Your task to perform on an android device: toggle translation in the chrome app Image 0: 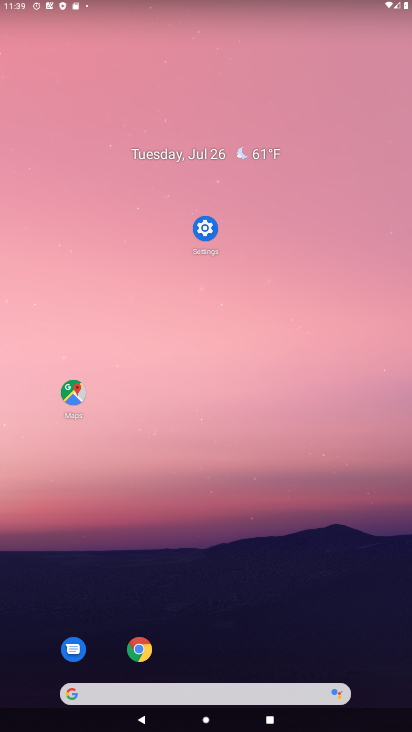
Step 0: drag from (201, 661) to (143, 90)
Your task to perform on an android device: toggle translation in the chrome app Image 1: 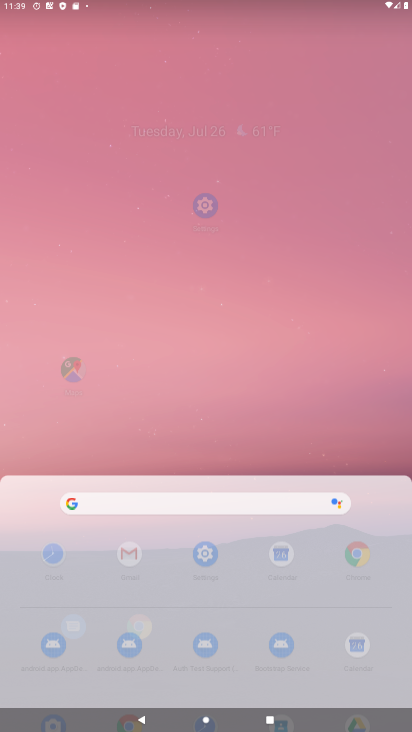
Step 1: drag from (236, 688) to (209, 143)
Your task to perform on an android device: toggle translation in the chrome app Image 2: 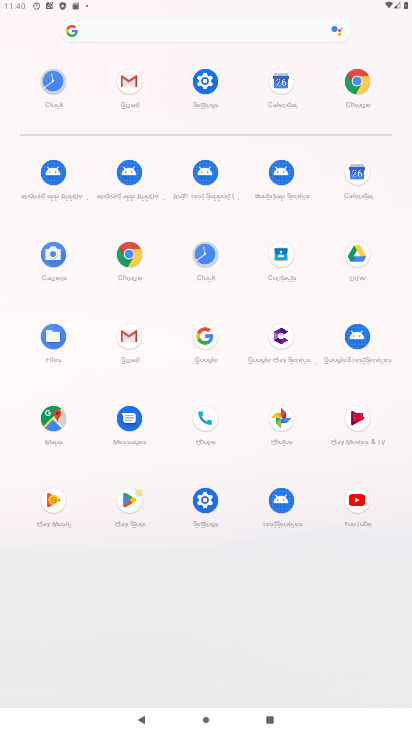
Step 2: drag from (230, 605) to (242, 301)
Your task to perform on an android device: toggle translation in the chrome app Image 3: 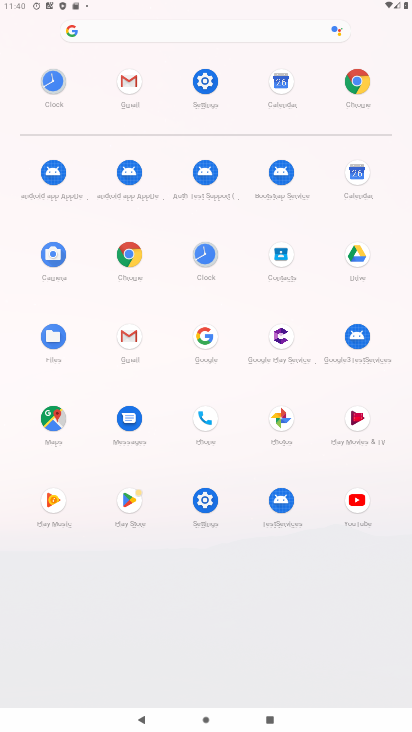
Step 3: click (360, 85)
Your task to perform on an android device: toggle translation in the chrome app Image 4: 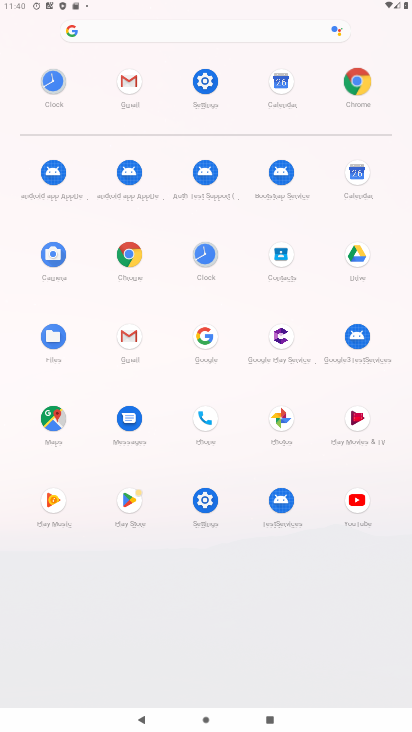
Step 4: click (357, 86)
Your task to perform on an android device: toggle translation in the chrome app Image 5: 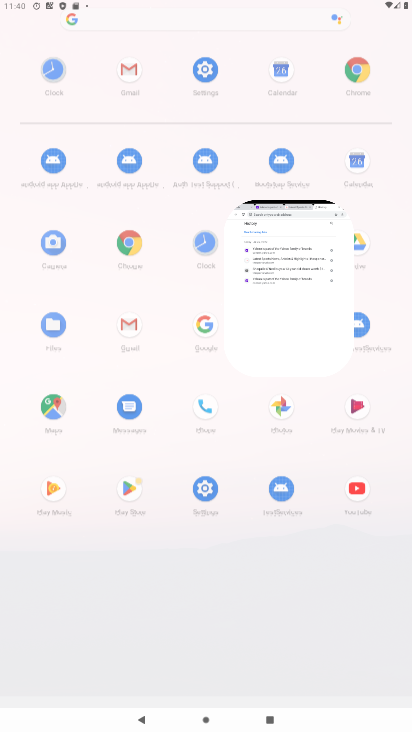
Step 5: click (359, 87)
Your task to perform on an android device: toggle translation in the chrome app Image 6: 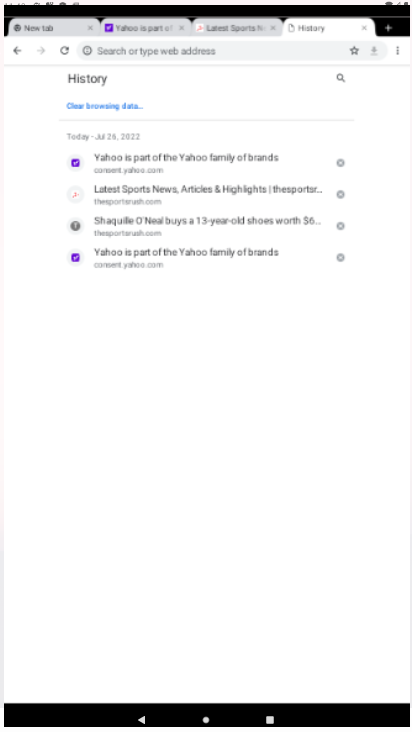
Step 6: click (361, 86)
Your task to perform on an android device: toggle translation in the chrome app Image 7: 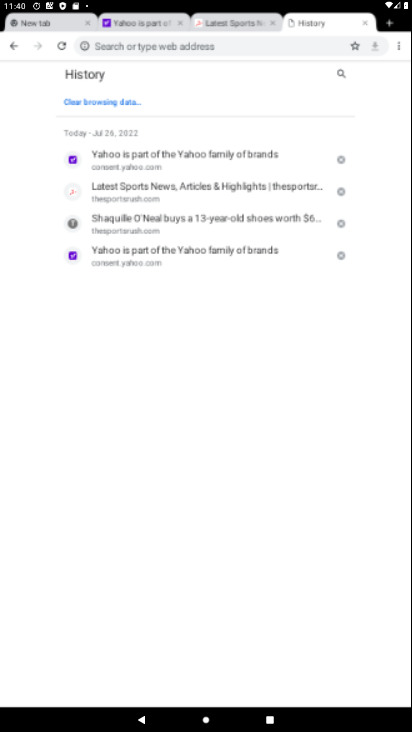
Step 7: click (361, 88)
Your task to perform on an android device: toggle translation in the chrome app Image 8: 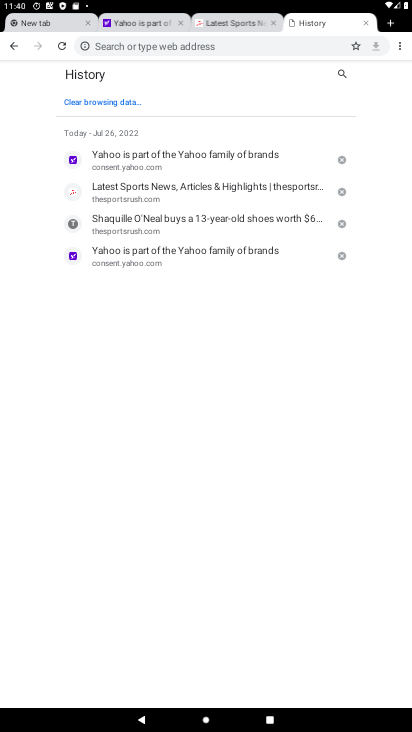
Step 8: drag from (400, 48) to (302, 210)
Your task to perform on an android device: toggle translation in the chrome app Image 9: 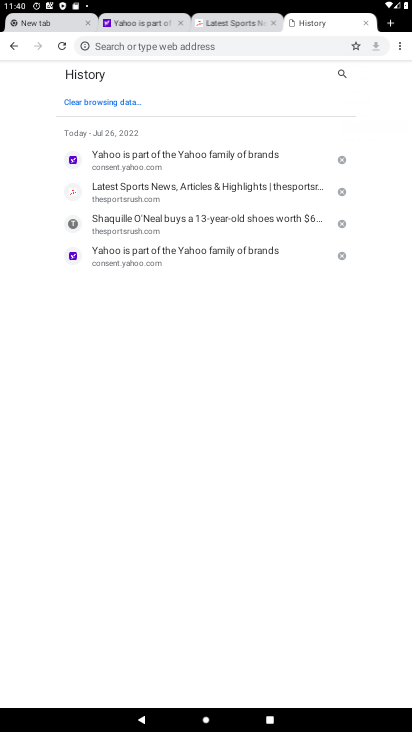
Step 9: click (299, 209)
Your task to perform on an android device: toggle translation in the chrome app Image 10: 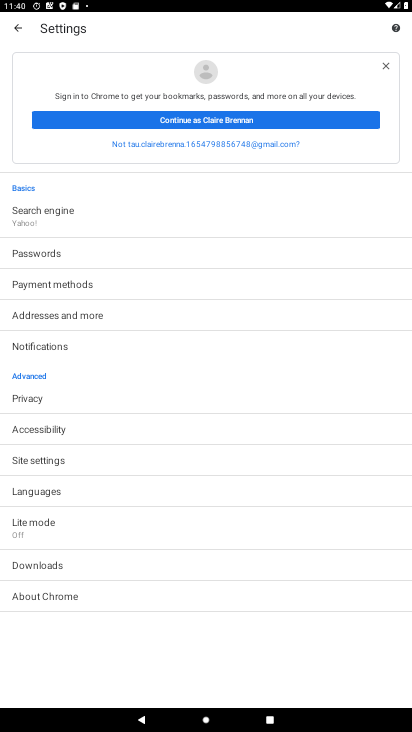
Step 10: click (35, 455)
Your task to perform on an android device: toggle translation in the chrome app Image 11: 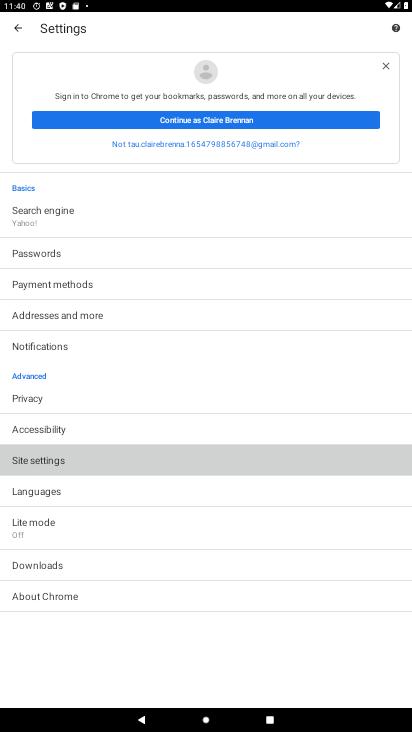
Step 11: click (39, 455)
Your task to perform on an android device: toggle translation in the chrome app Image 12: 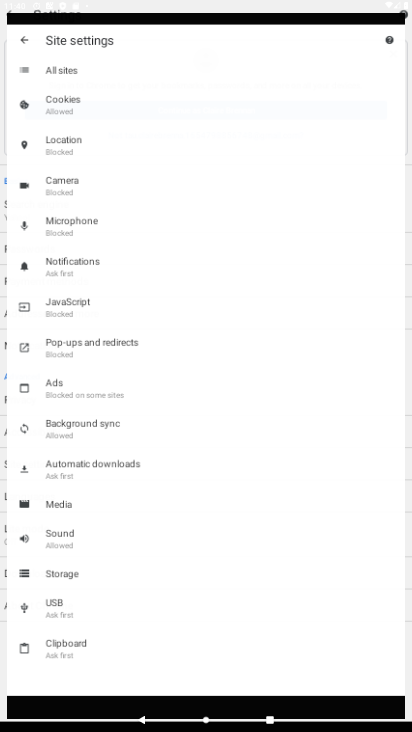
Step 12: click (39, 455)
Your task to perform on an android device: toggle translation in the chrome app Image 13: 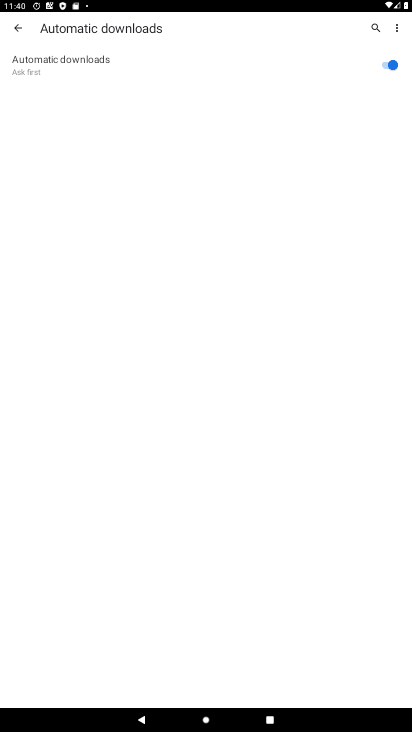
Step 13: click (22, 21)
Your task to perform on an android device: toggle translation in the chrome app Image 14: 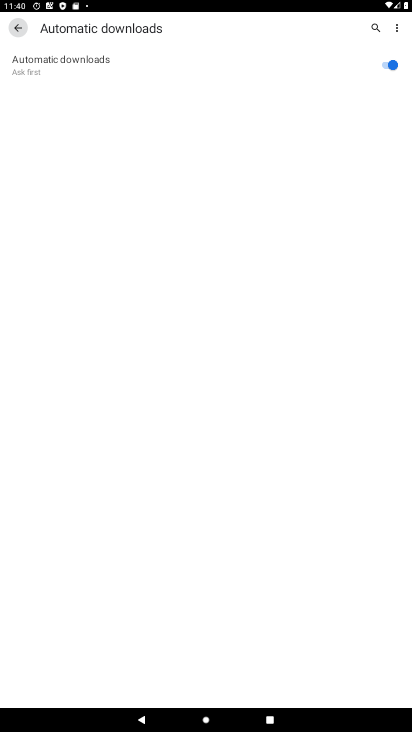
Step 14: click (22, 21)
Your task to perform on an android device: toggle translation in the chrome app Image 15: 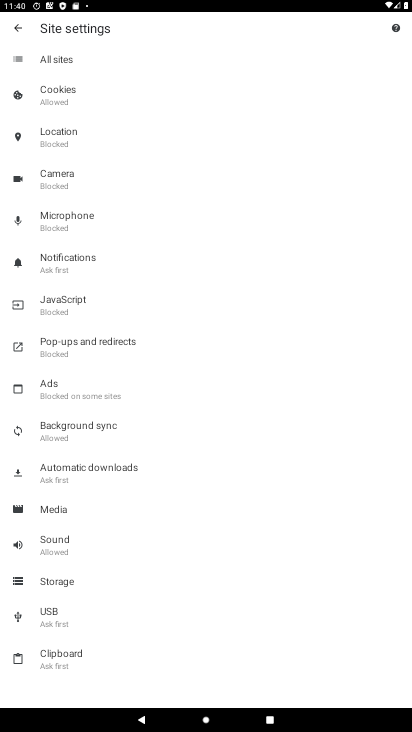
Step 15: click (78, 146)
Your task to perform on an android device: toggle translation in the chrome app Image 16: 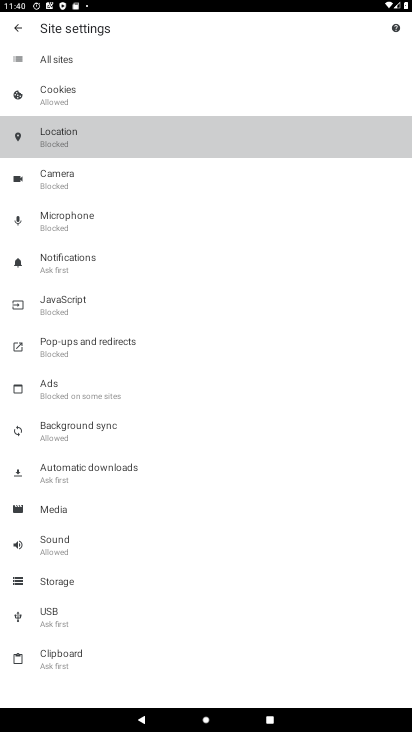
Step 16: click (78, 143)
Your task to perform on an android device: toggle translation in the chrome app Image 17: 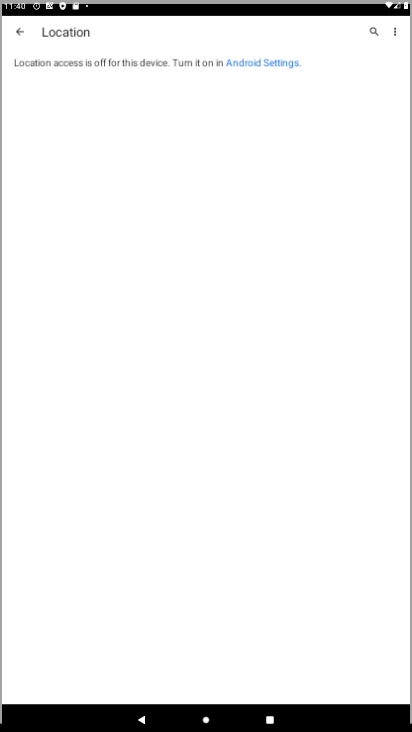
Step 17: click (81, 141)
Your task to perform on an android device: toggle translation in the chrome app Image 18: 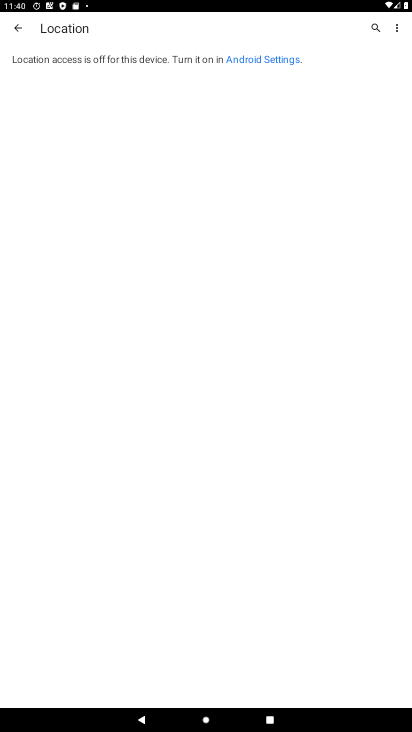
Step 18: click (257, 49)
Your task to perform on an android device: toggle translation in the chrome app Image 19: 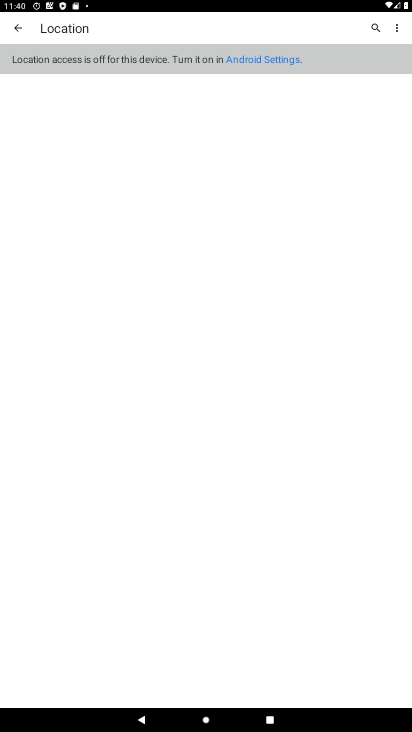
Step 19: click (257, 48)
Your task to perform on an android device: toggle translation in the chrome app Image 20: 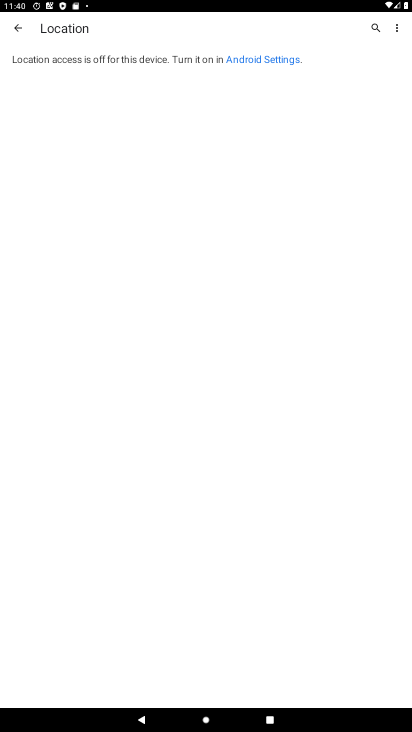
Step 20: click (256, 48)
Your task to perform on an android device: toggle translation in the chrome app Image 21: 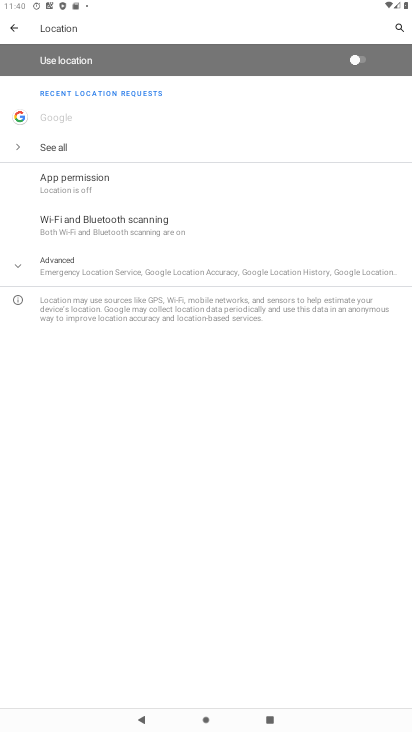
Step 21: click (351, 79)
Your task to perform on an android device: toggle translation in the chrome app Image 22: 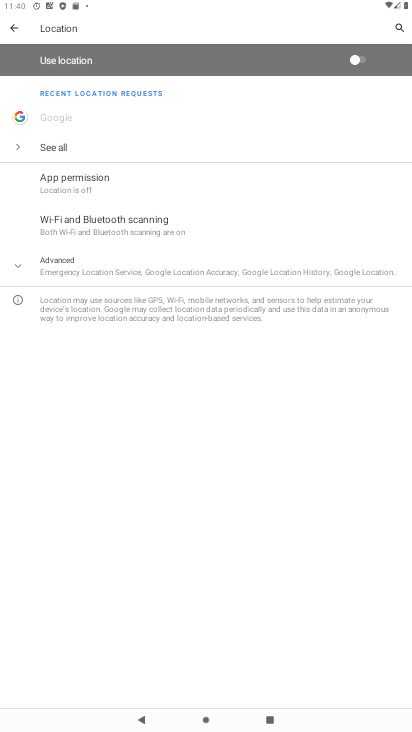
Step 22: click (8, 32)
Your task to perform on an android device: toggle translation in the chrome app Image 23: 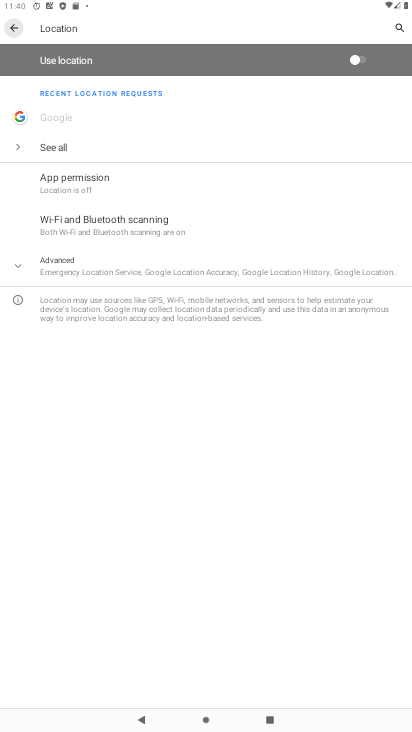
Step 23: click (15, 27)
Your task to perform on an android device: toggle translation in the chrome app Image 24: 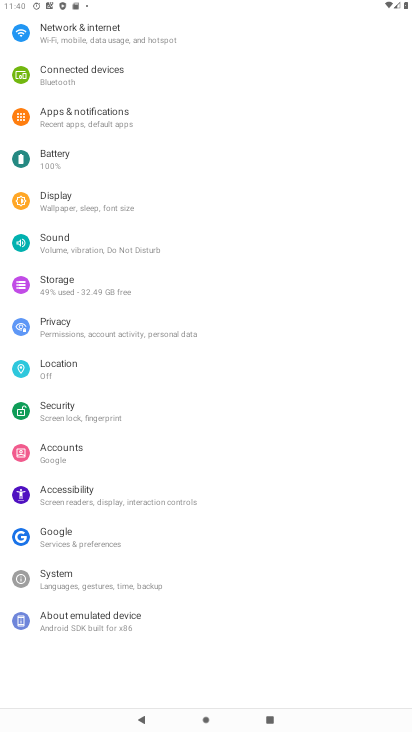
Step 24: press home button
Your task to perform on an android device: toggle translation in the chrome app Image 25: 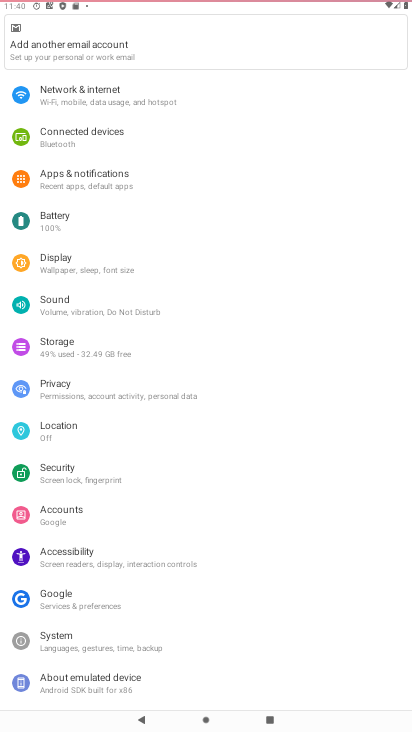
Step 25: press back button
Your task to perform on an android device: toggle translation in the chrome app Image 26: 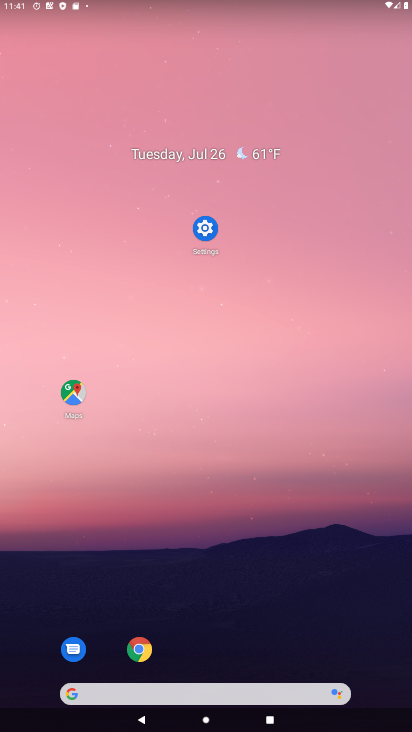
Step 26: drag from (261, 596) to (267, 9)
Your task to perform on an android device: toggle translation in the chrome app Image 27: 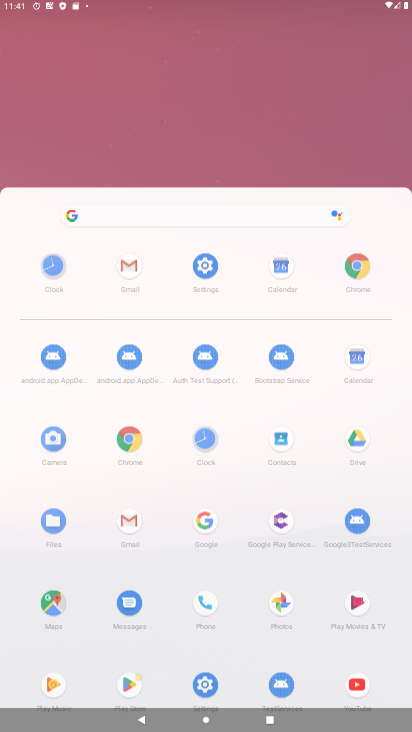
Step 27: drag from (321, 587) to (254, 193)
Your task to perform on an android device: toggle translation in the chrome app Image 28: 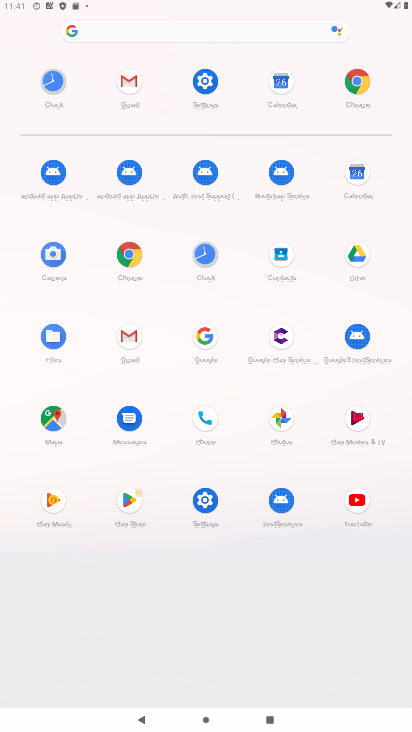
Step 28: click (115, 251)
Your task to perform on an android device: toggle translation in the chrome app Image 29: 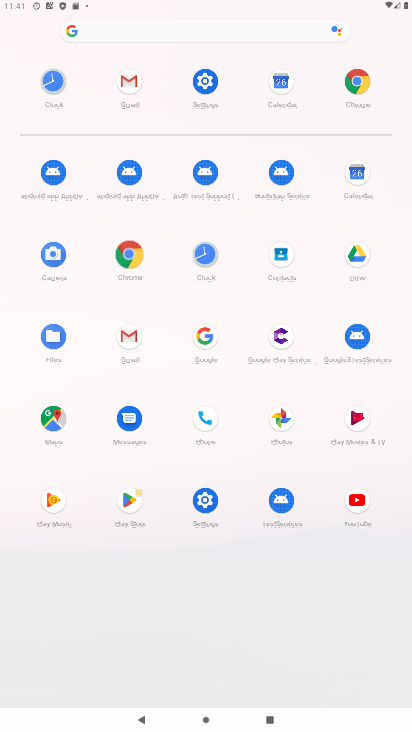
Step 29: click (123, 256)
Your task to perform on an android device: toggle translation in the chrome app Image 30: 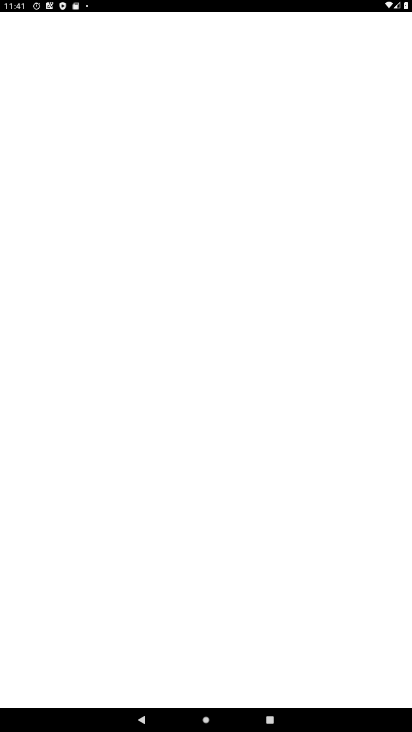
Step 30: click (123, 256)
Your task to perform on an android device: toggle translation in the chrome app Image 31: 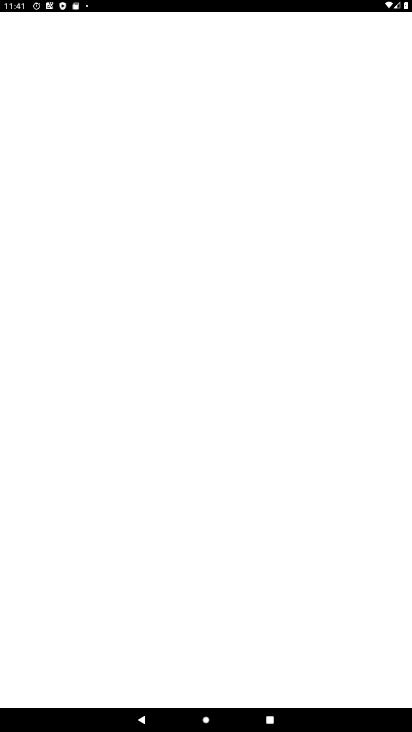
Step 31: click (119, 257)
Your task to perform on an android device: toggle translation in the chrome app Image 32: 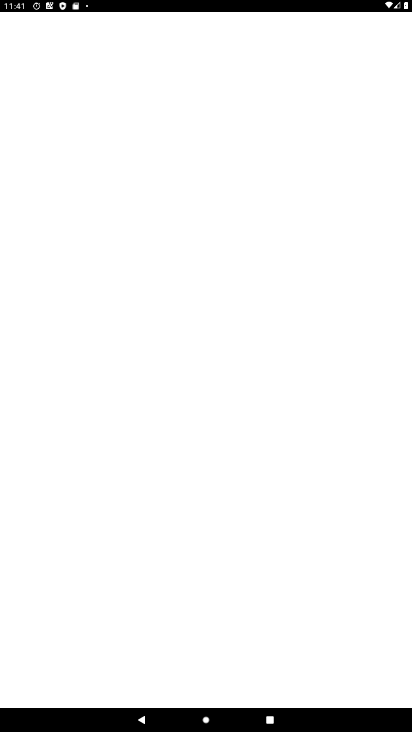
Step 32: click (117, 258)
Your task to perform on an android device: toggle translation in the chrome app Image 33: 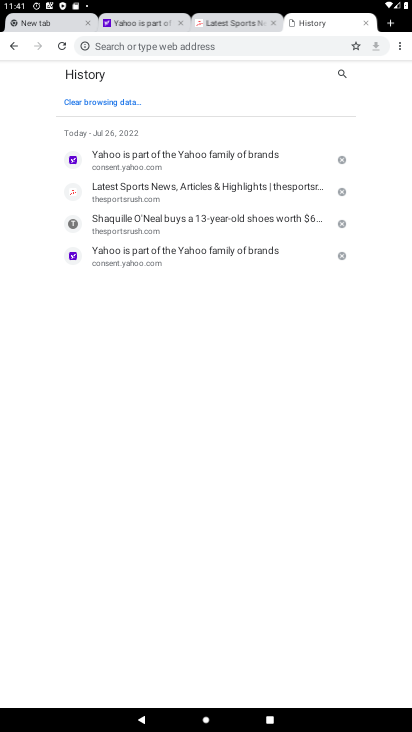
Step 33: click (401, 47)
Your task to perform on an android device: toggle translation in the chrome app Image 34: 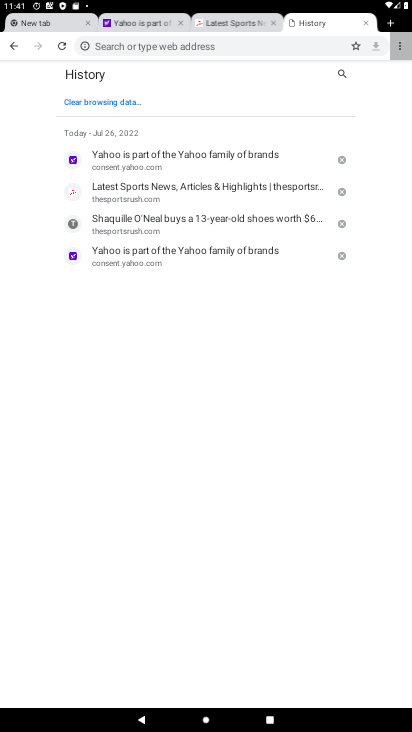
Step 34: click (399, 46)
Your task to perform on an android device: toggle translation in the chrome app Image 35: 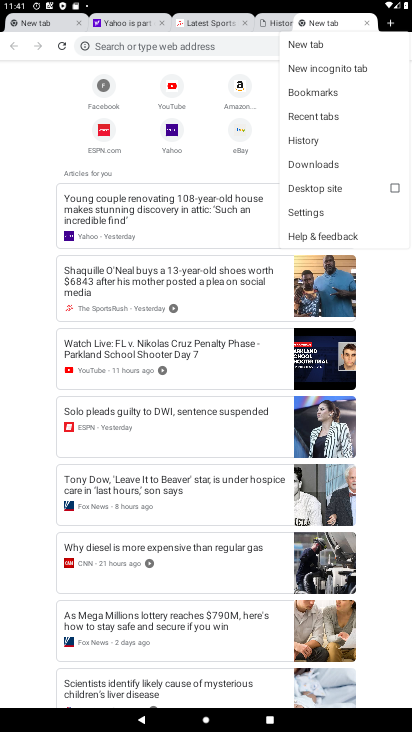
Step 35: click (306, 217)
Your task to perform on an android device: toggle translation in the chrome app Image 36: 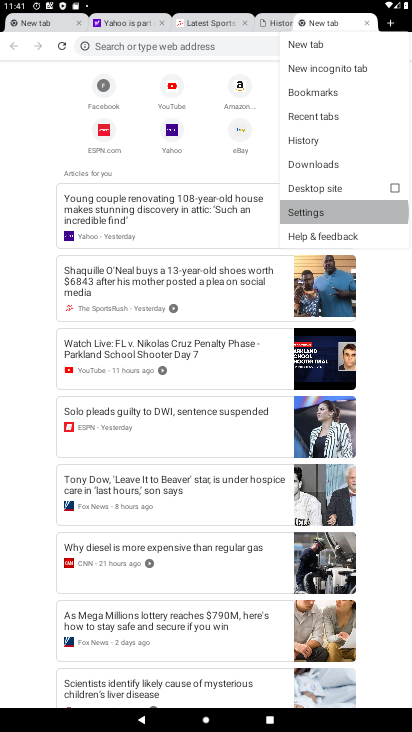
Step 36: click (308, 212)
Your task to perform on an android device: toggle translation in the chrome app Image 37: 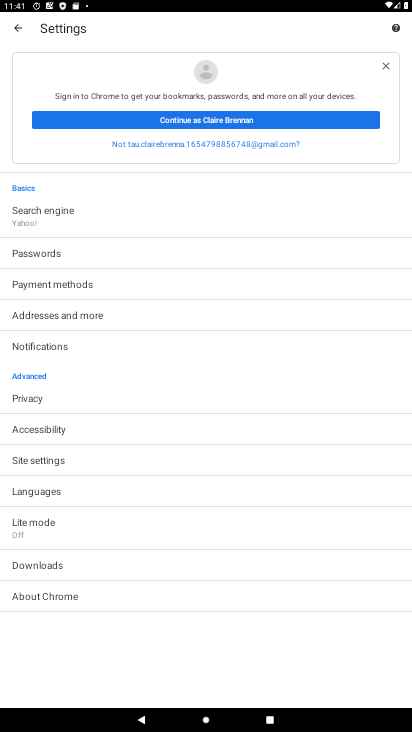
Step 37: click (47, 481)
Your task to perform on an android device: toggle translation in the chrome app Image 38: 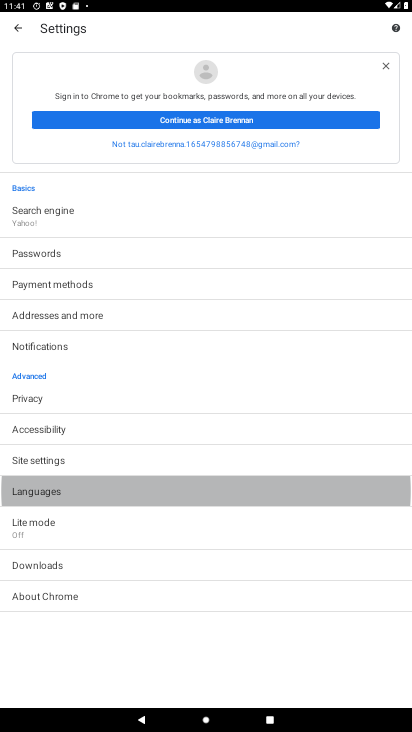
Step 38: click (50, 482)
Your task to perform on an android device: toggle translation in the chrome app Image 39: 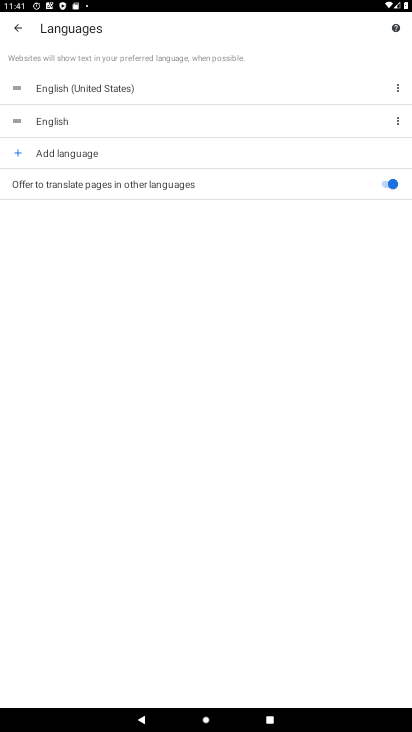
Step 39: click (389, 186)
Your task to perform on an android device: toggle translation in the chrome app Image 40: 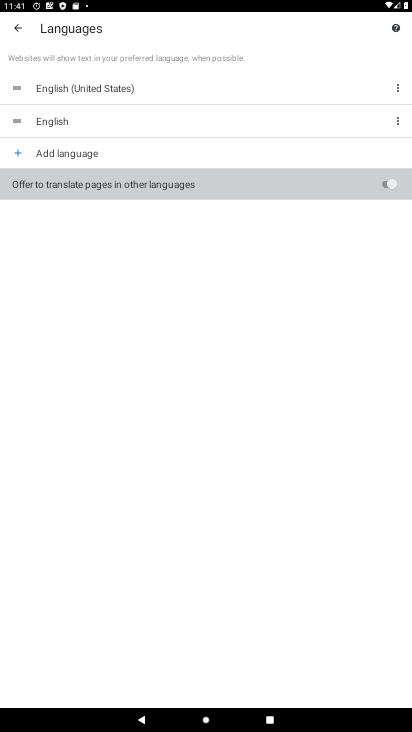
Step 40: click (392, 183)
Your task to perform on an android device: toggle translation in the chrome app Image 41: 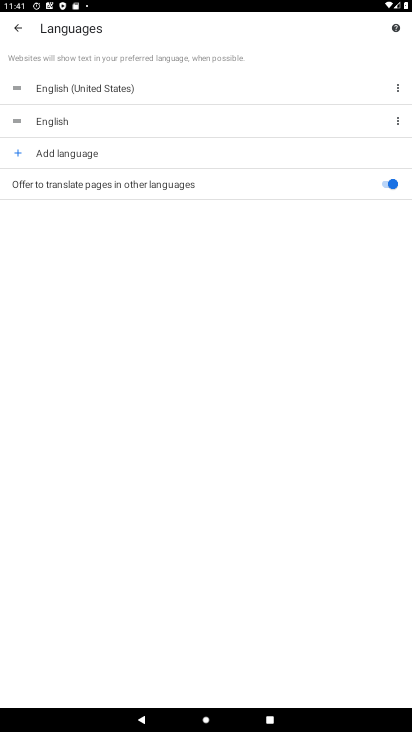
Step 41: click (391, 176)
Your task to perform on an android device: toggle translation in the chrome app Image 42: 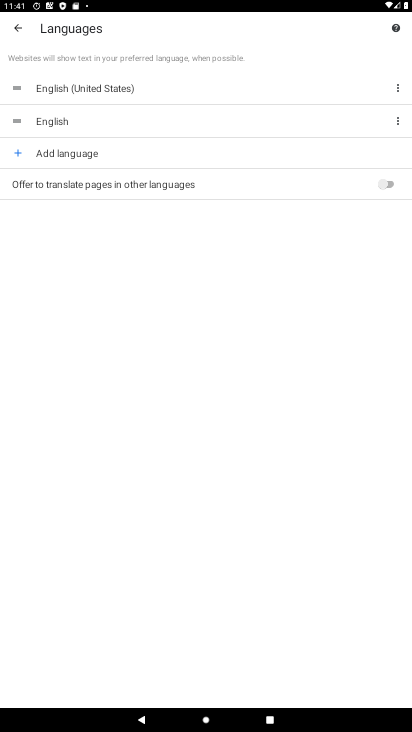
Step 42: task complete